Your task to perform on an android device: check android version Image 0: 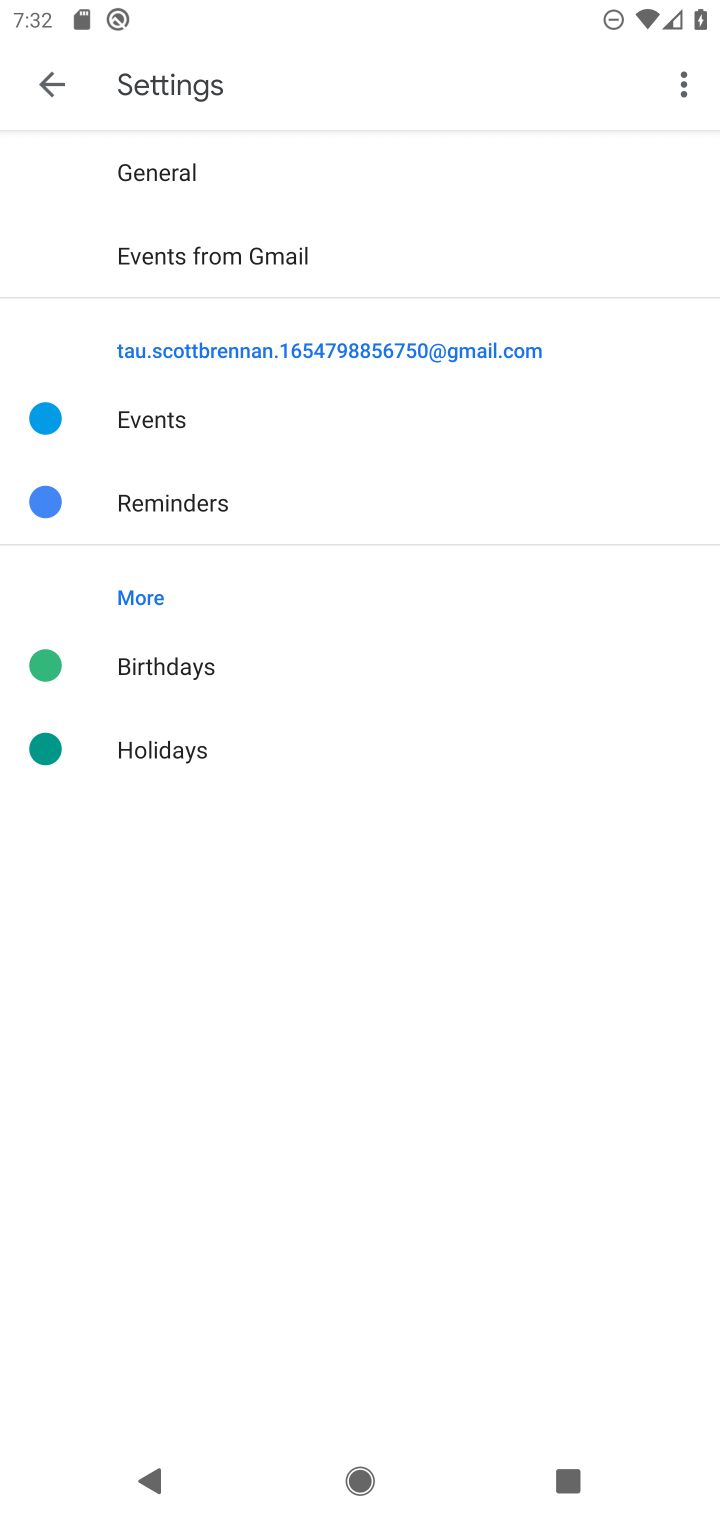
Step 0: press home button
Your task to perform on an android device: check android version Image 1: 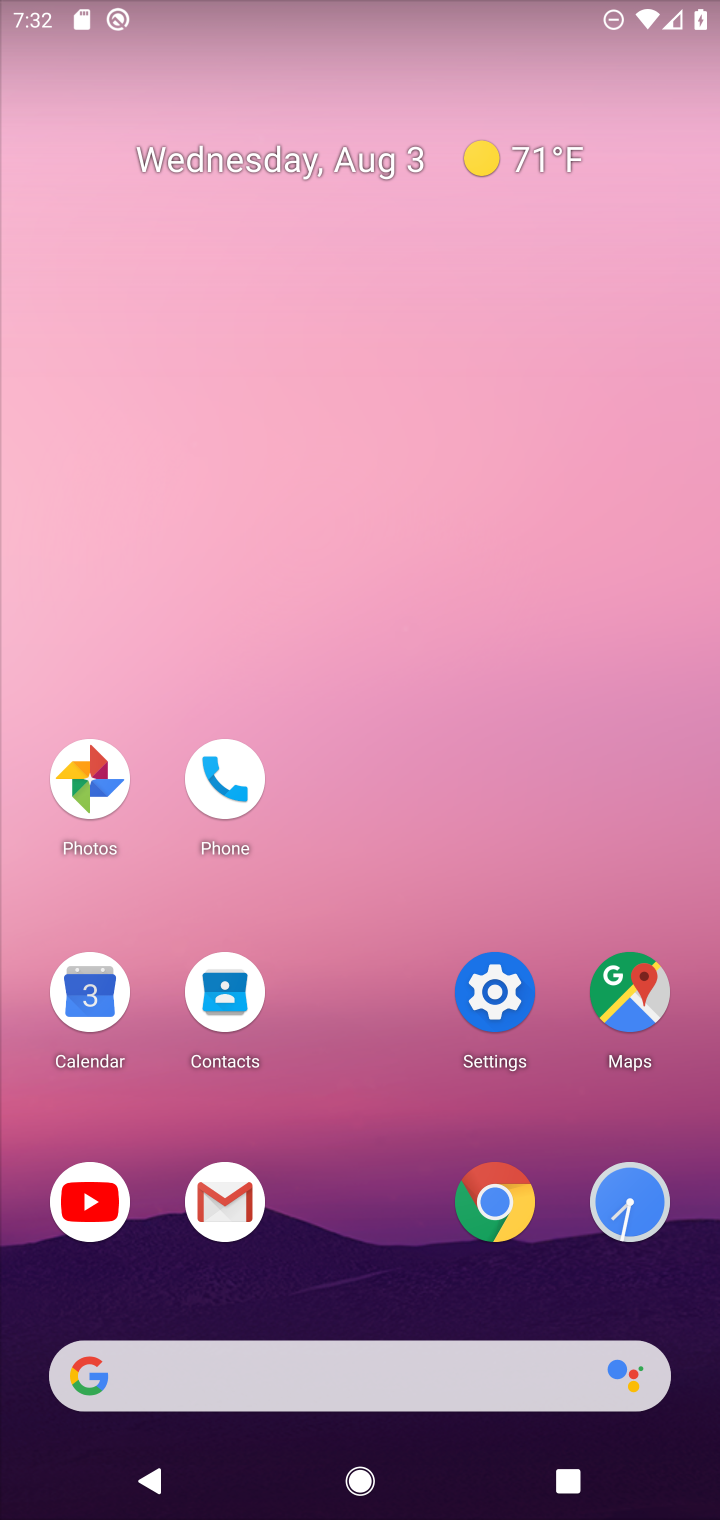
Step 1: click (495, 992)
Your task to perform on an android device: check android version Image 2: 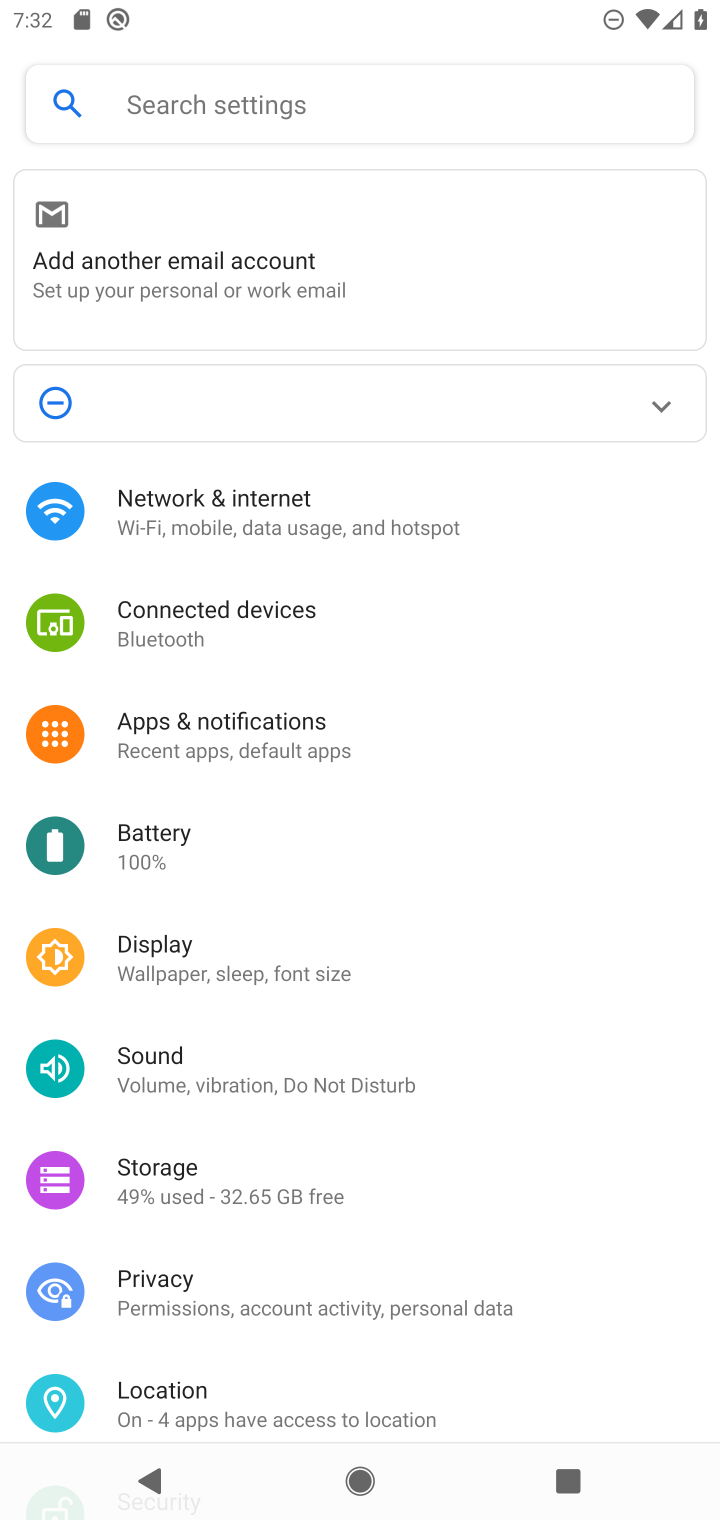
Step 2: drag from (409, 1348) to (435, 416)
Your task to perform on an android device: check android version Image 3: 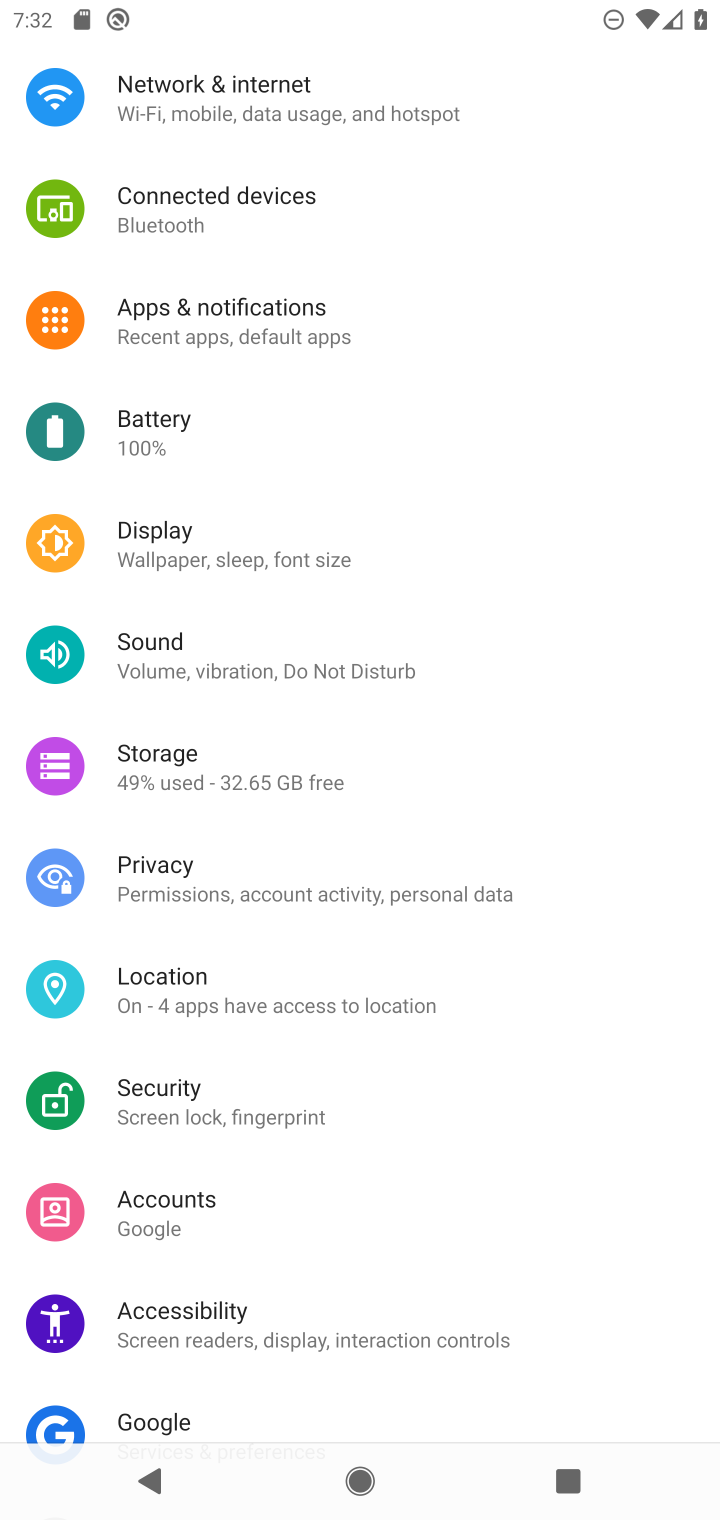
Step 3: drag from (405, 1229) to (406, 580)
Your task to perform on an android device: check android version Image 4: 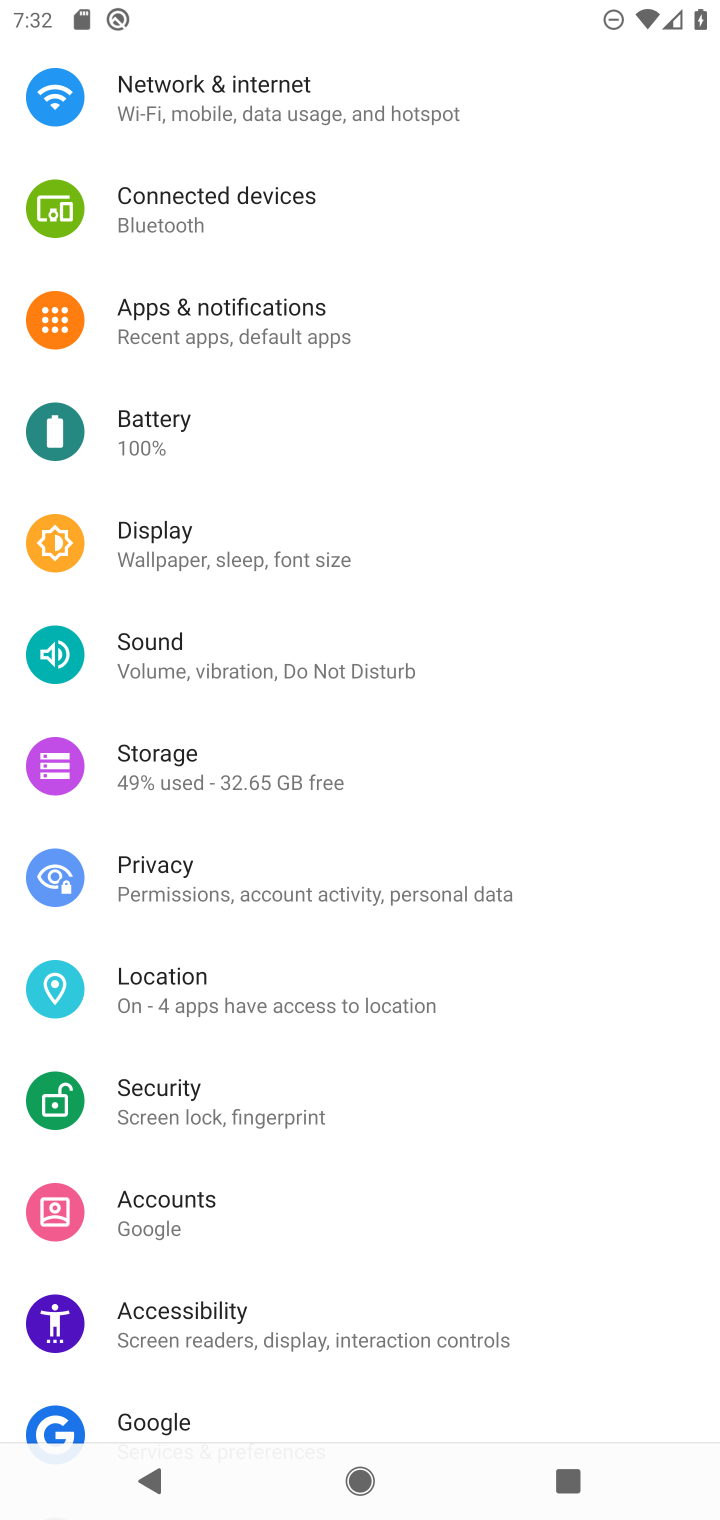
Step 4: drag from (401, 1261) to (458, 370)
Your task to perform on an android device: check android version Image 5: 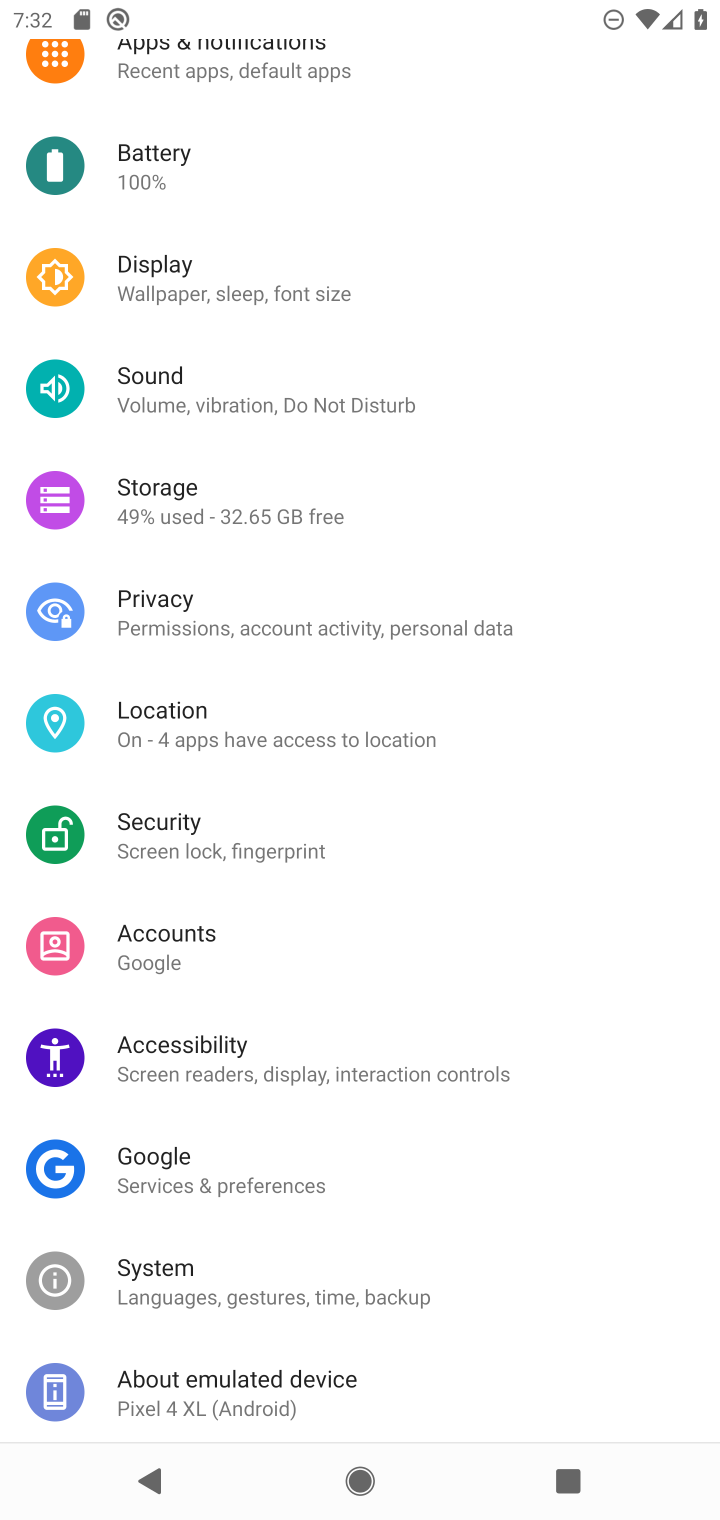
Step 5: click (265, 1372)
Your task to perform on an android device: check android version Image 6: 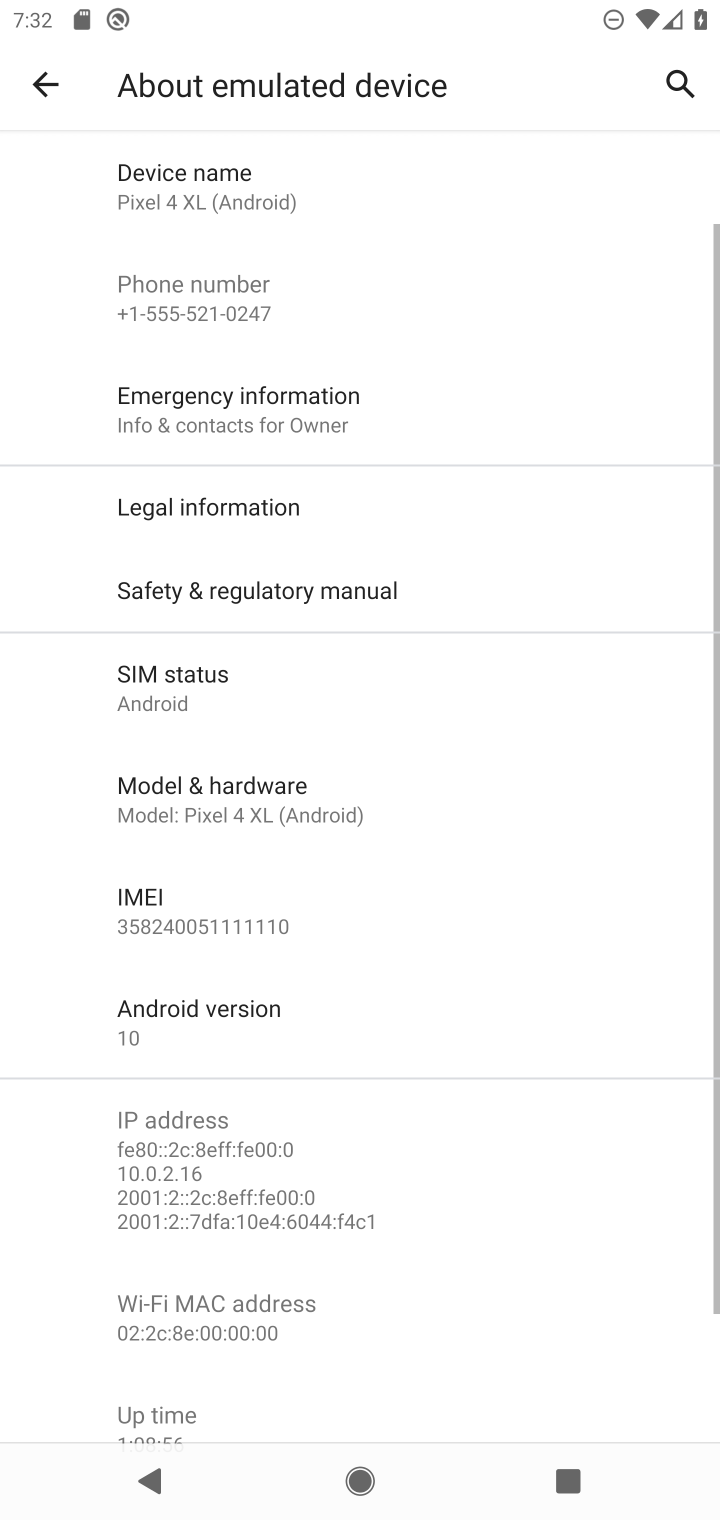
Step 6: click (210, 1009)
Your task to perform on an android device: check android version Image 7: 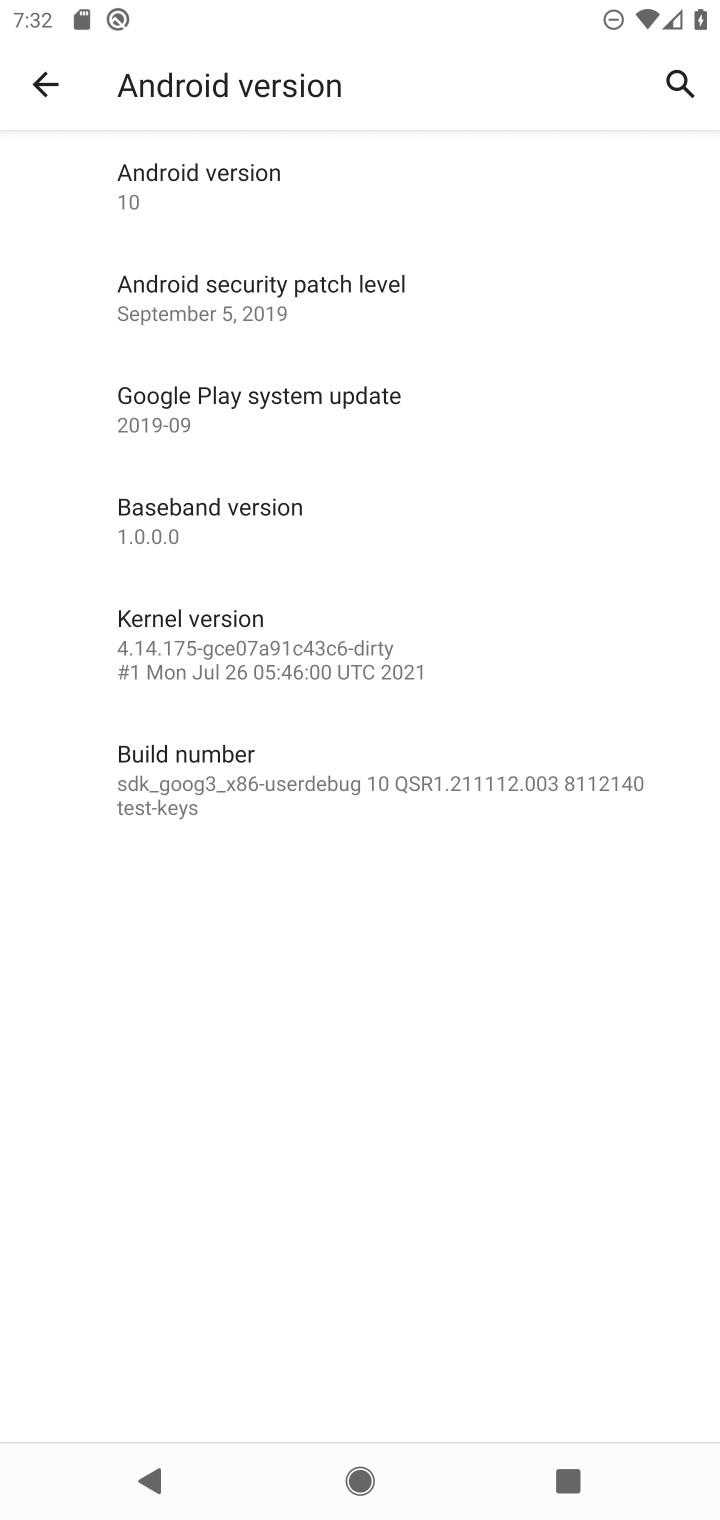
Step 7: task complete